Your task to perform on an android device: turn pop-ups off in chrome Image 0: 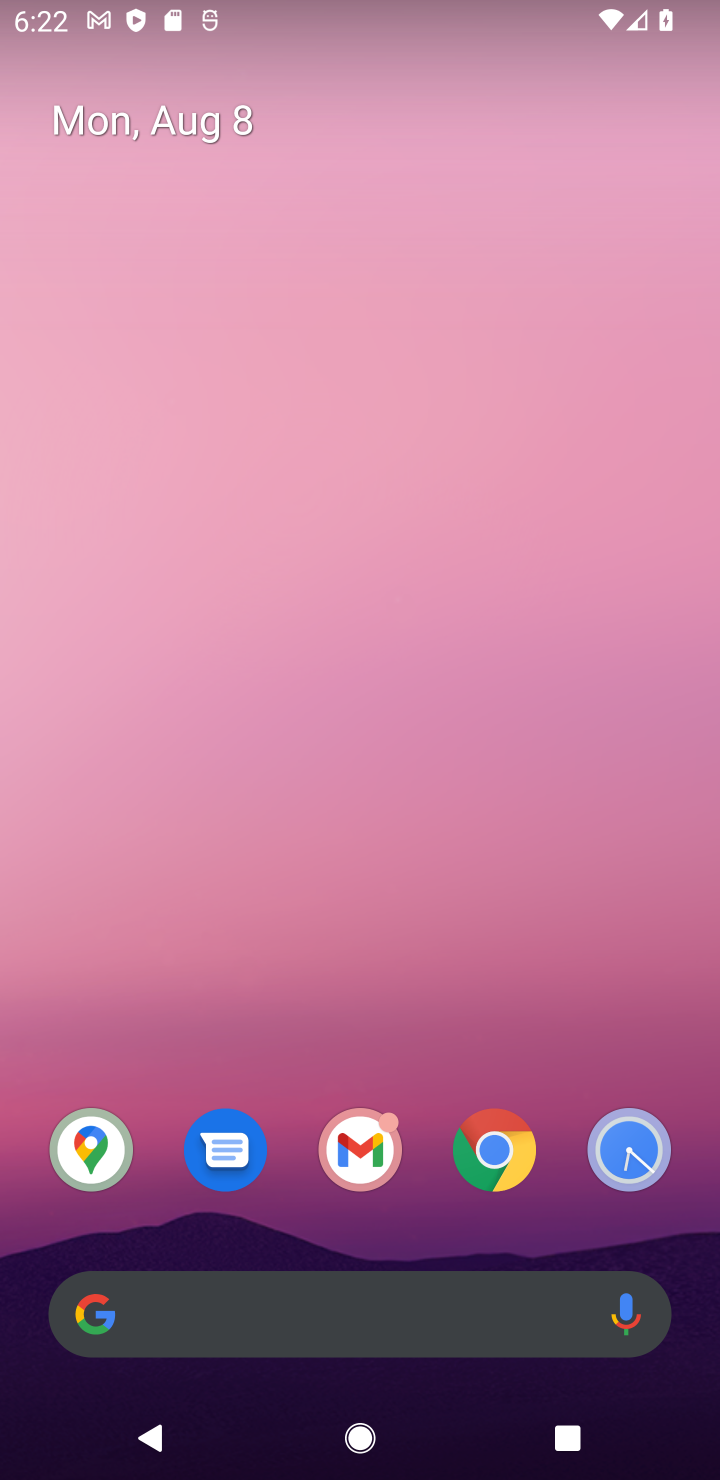
Step 0: click (487, 1156)
Your task to perform on an android device: turn pop-ups off in chrome Image 1: 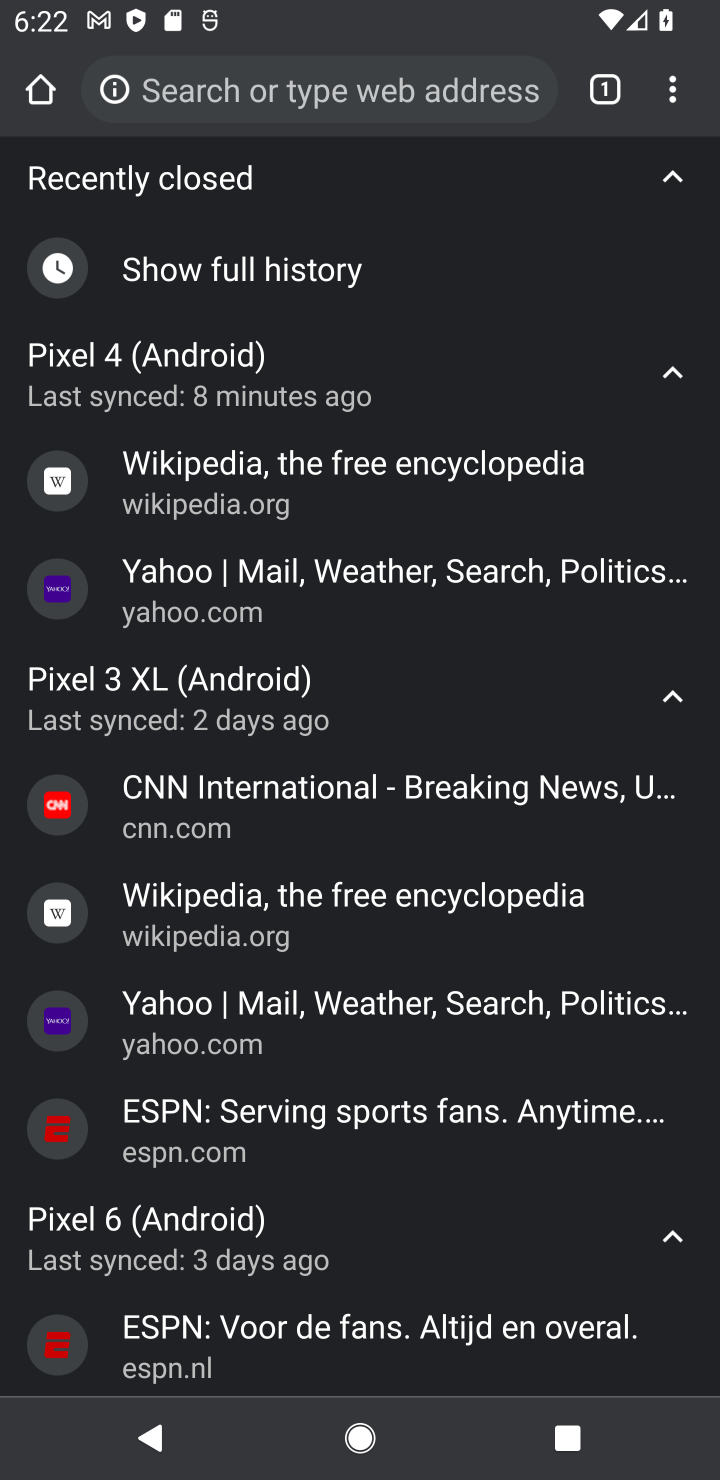
Step 1: click (673, 82)
Your task to perform on an android device: turn pop-ups off in chrome Image 2: 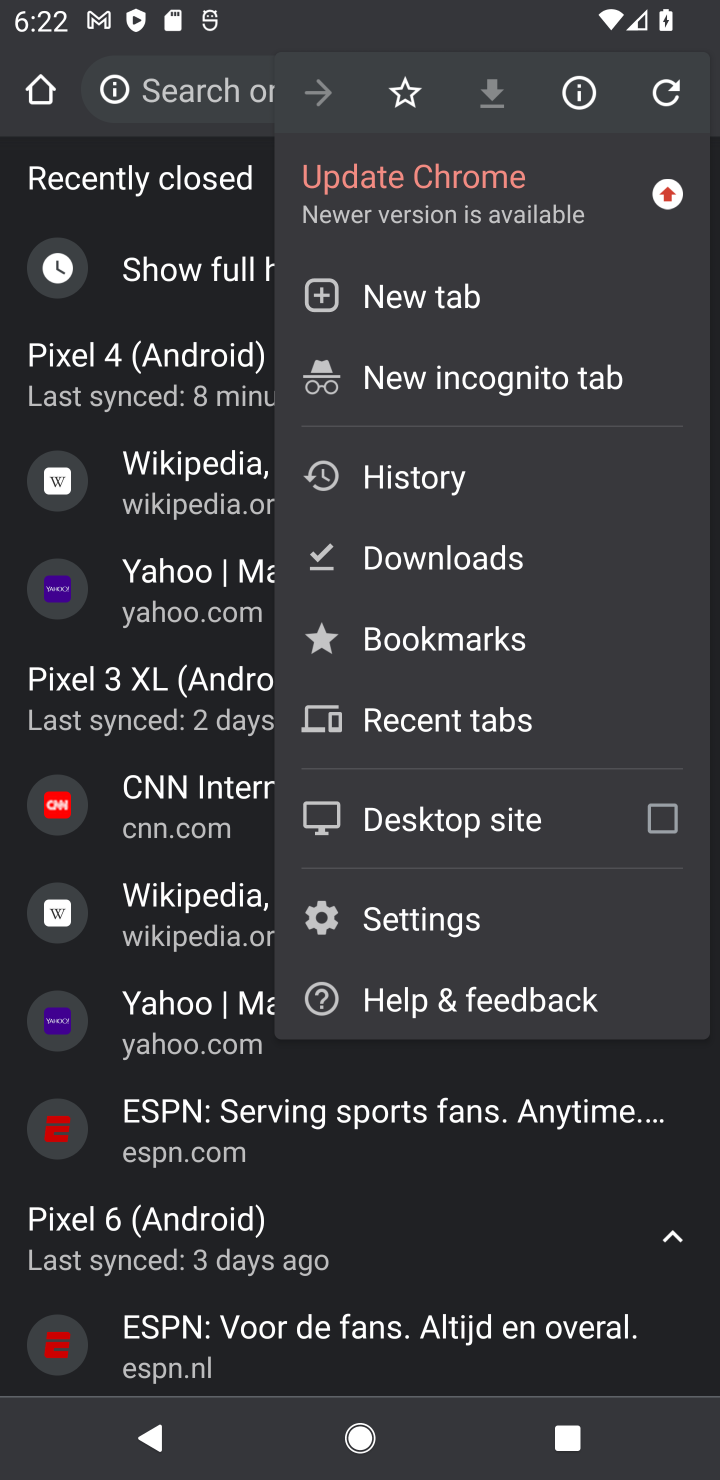
Step 2: click (412, 920)
Your task to perform on an android device: turn pop-ups off in chrome Image 3: 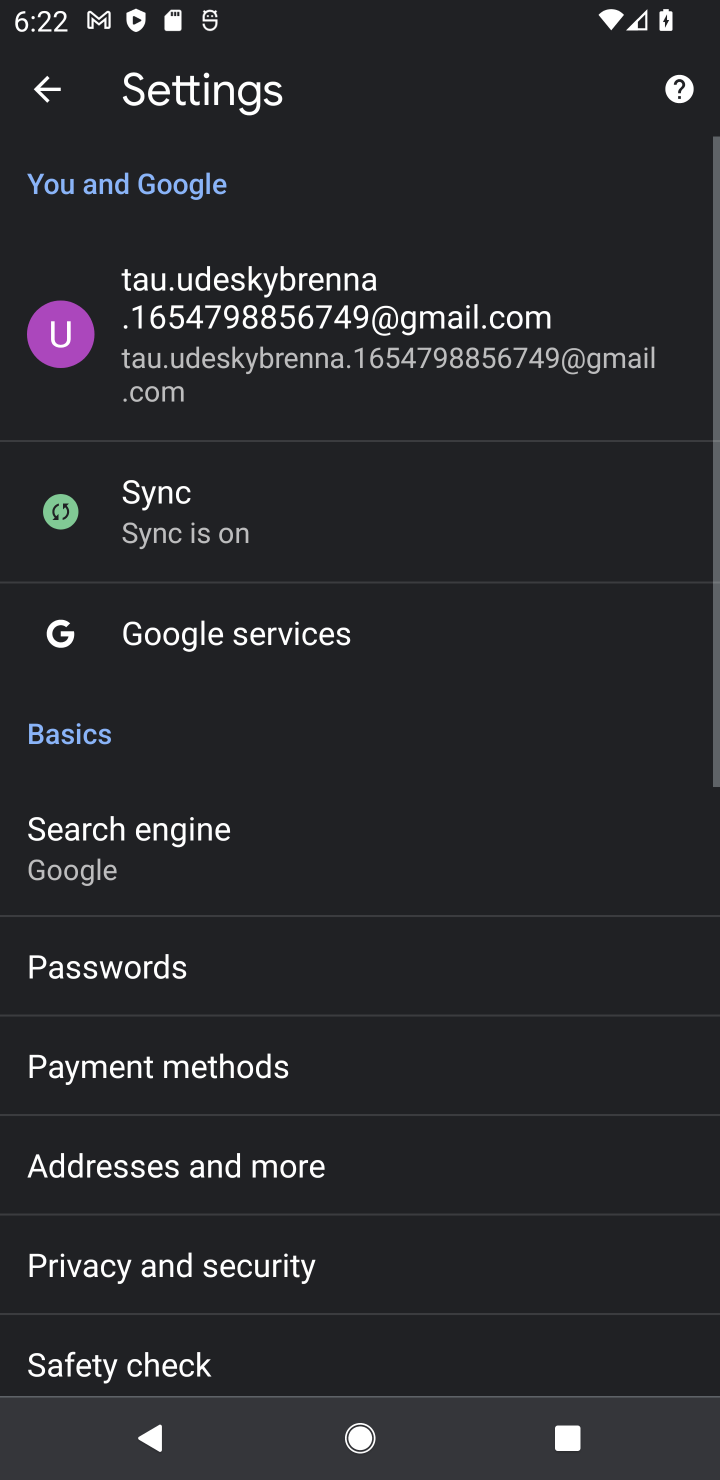
Step 3: task complete